Your task to perform on an android device: What's the weather going to be this weekend? Image 0: 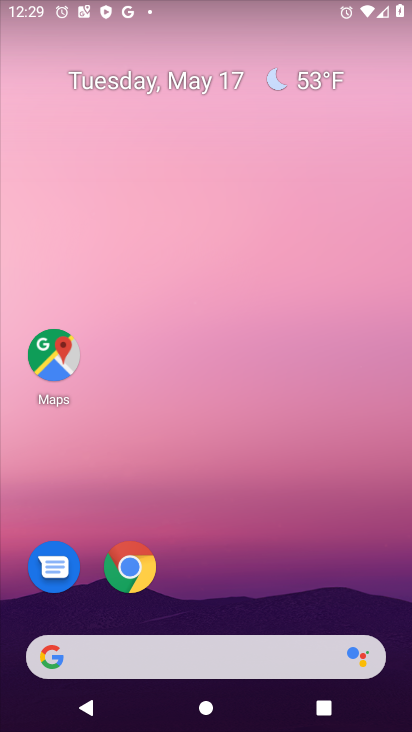
Step 0: click (285, 656)
Your task to perform on an android device: What's the weather going to be this weekend? Image 1: 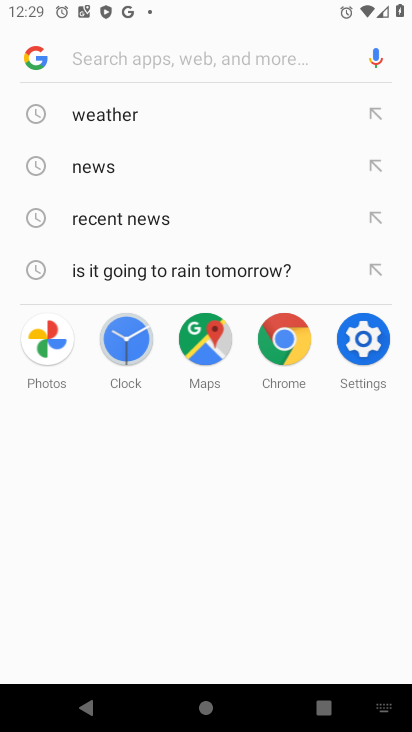
Step 1: click (123, 117)
Your task to perform on an android device: What's the weather going to be this weekend? Image 2: 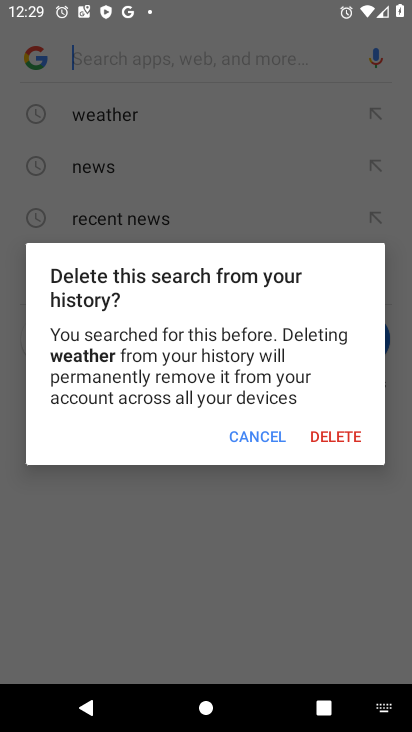
Step 2: click (248, 438)
Your task to perform on an android device: What's the weather going to be this weekend? Image 3: 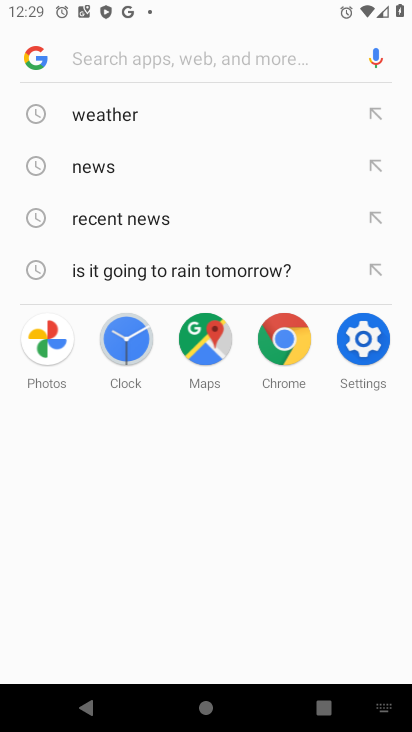
Step 3: click (143, 119)
Your task to perform on an android device: What's the weather going to be this weekend? Image 4: 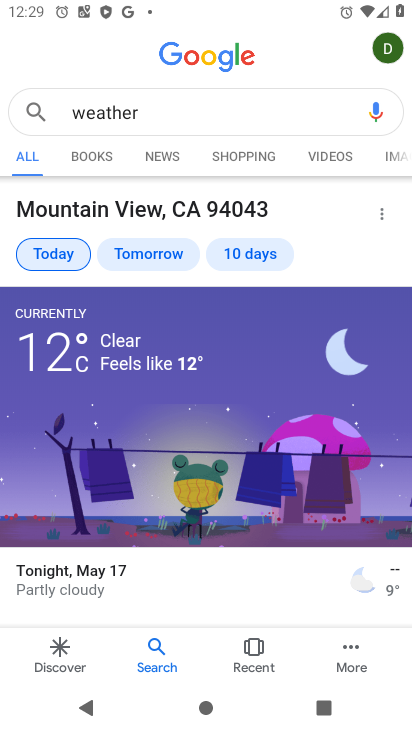
Step 4: click (262, 265)
Your task to perform on an android device: What's the weather going to be this weekend? Image 5: 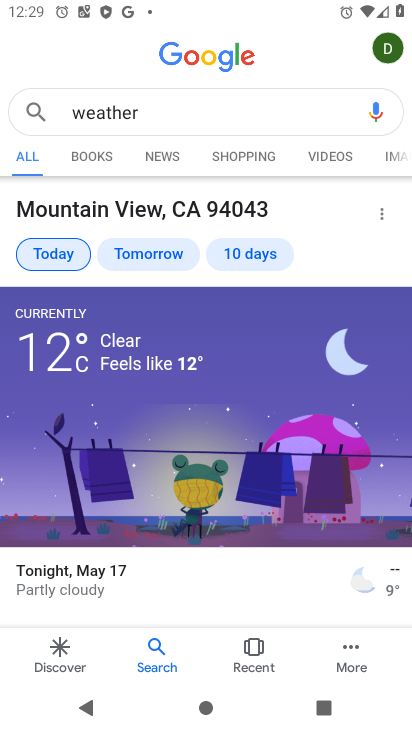
Step 5: click (262, 257)
Your task to perform on an android device: What's the weather going to be this weekend? Image 6: 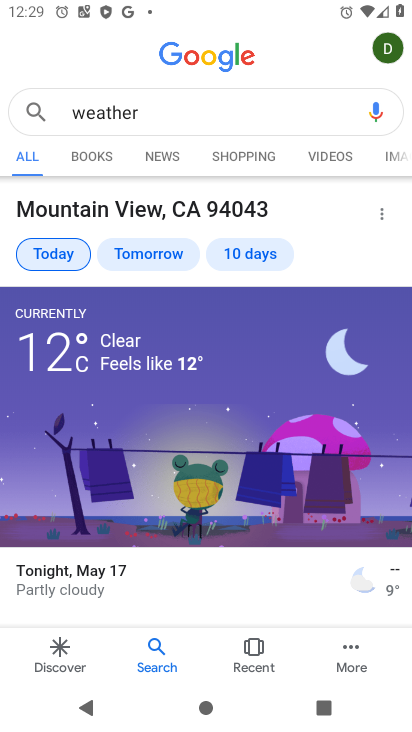
Step 6: click (262, 256)
Your task to perform on an android device: What's the weather going to be this weekend? Image 7: 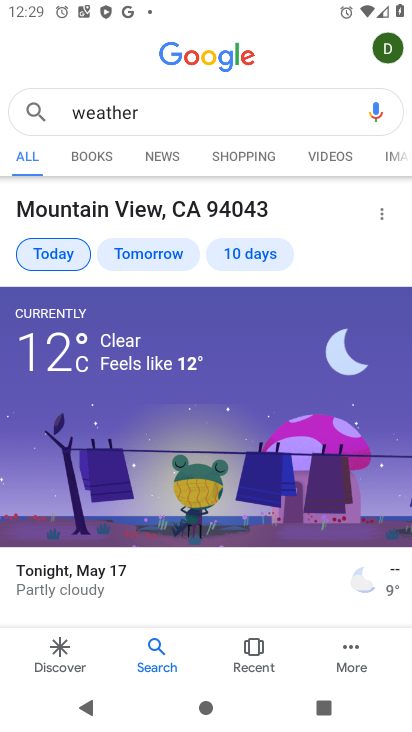
Step 7: task complete